Your task to perform on an android device: toggle sleep mode Image 0: 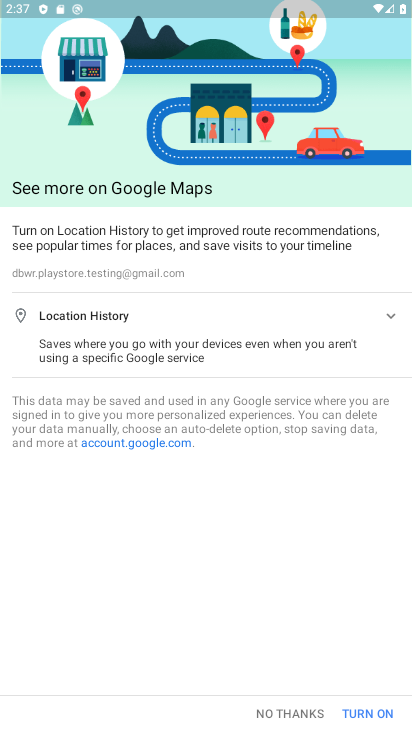
Step 0: press home button
Your task to perform on an android device: toggle sleep mode Image 1: 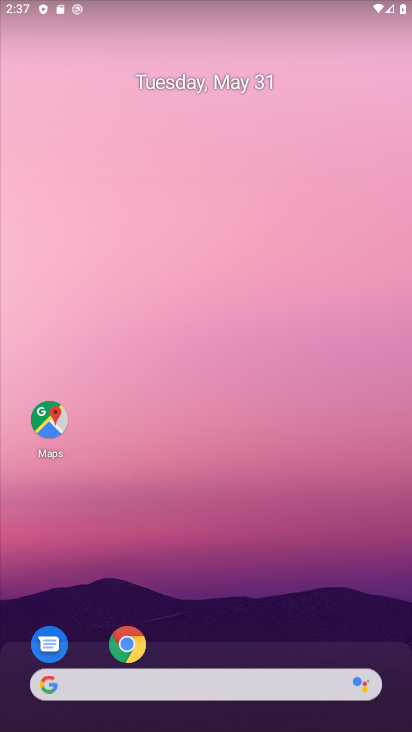
Step 1: task complete